Your task to perform on an android device: Open Wikipedia Image 0: 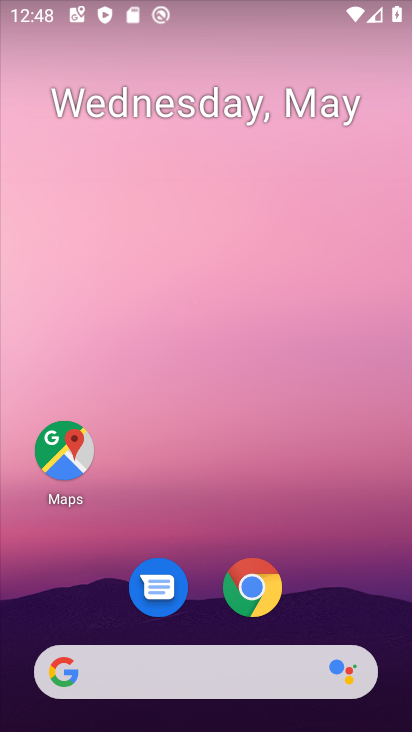
Step 0: drag from (393, 597) to (402, 271)
Your task to perform on an android device: Open Wikipedia Image 1: 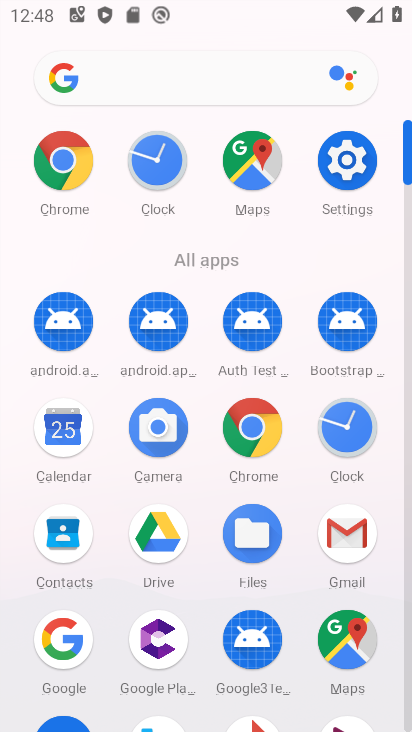
Step 1: click (262, 439)
Your task to perform on an android device: Open Wikipedia Image 2: 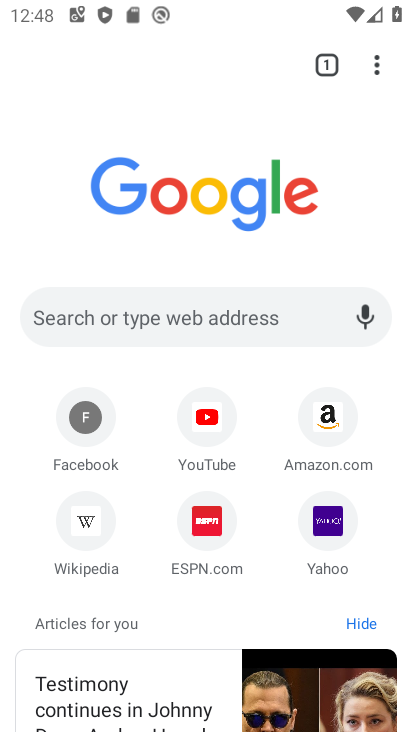
Step 2: click (89, 545)
Your task to perform on an android device: Open Wikipedia Image 3: 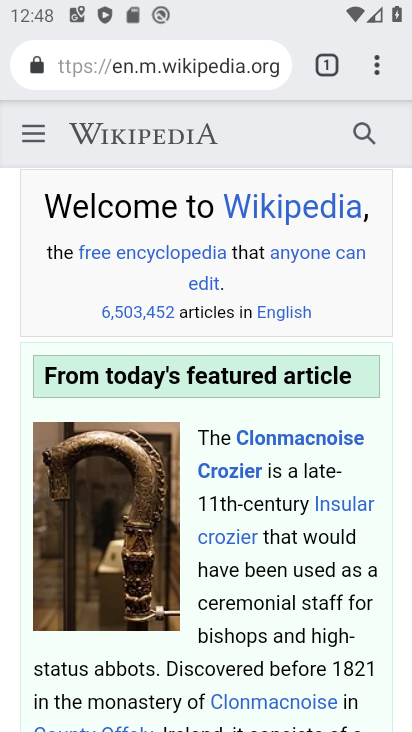
Step 3: task complete